Your task to perform on an android device: Check the news Image 0: 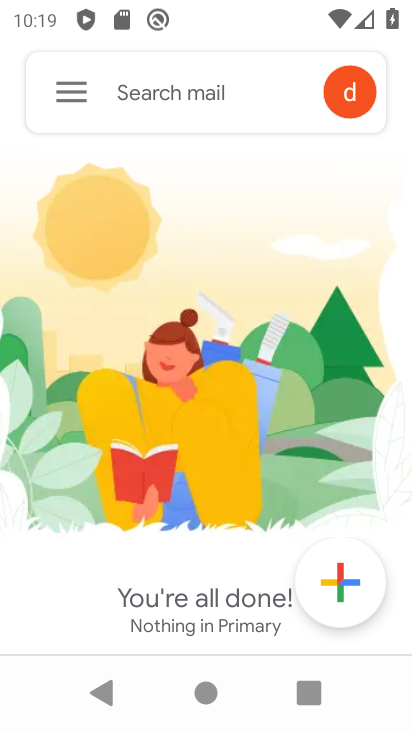
Step 0: press home button
Your task to perform on an android device: Check the news Image 1: 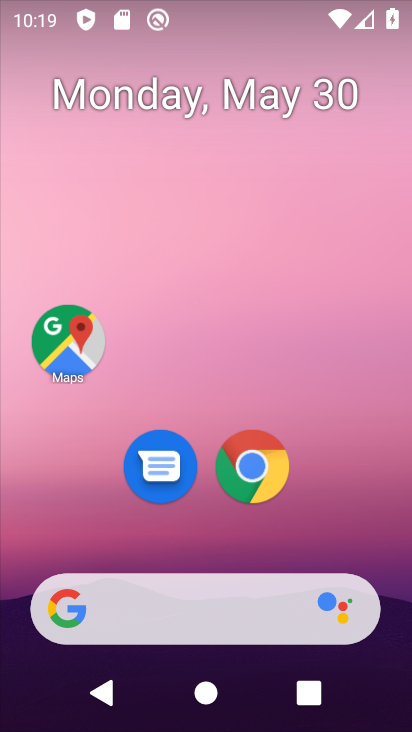
Step 1: click (162, 615)
Your task to perform on an android device: Check the news Image 2: 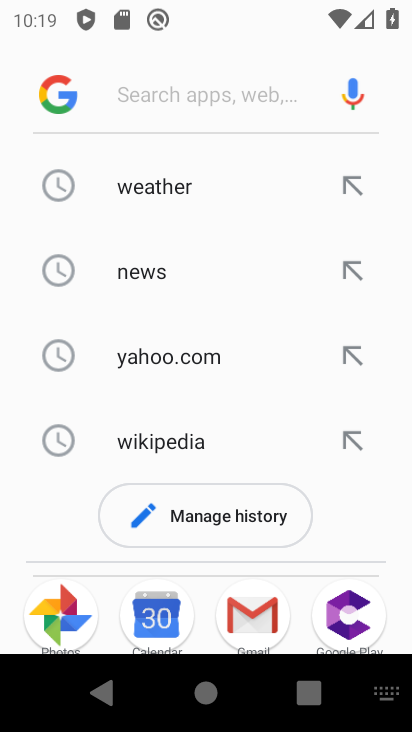
Step 2: click (195, 286)
Your task to perform on an android device: Check the news Image 3: 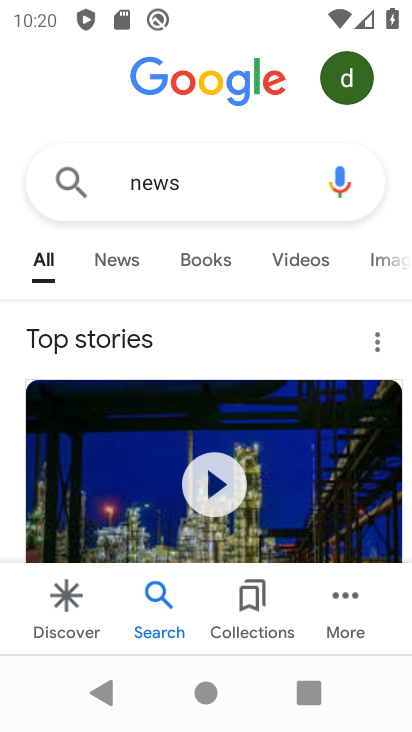
Step 3: task complete